Your task to perform on an android device: Show the shopping cart on newegg.com. Add "razer huntsman" to the cart on newegg.com, then select checkout. Image 0: 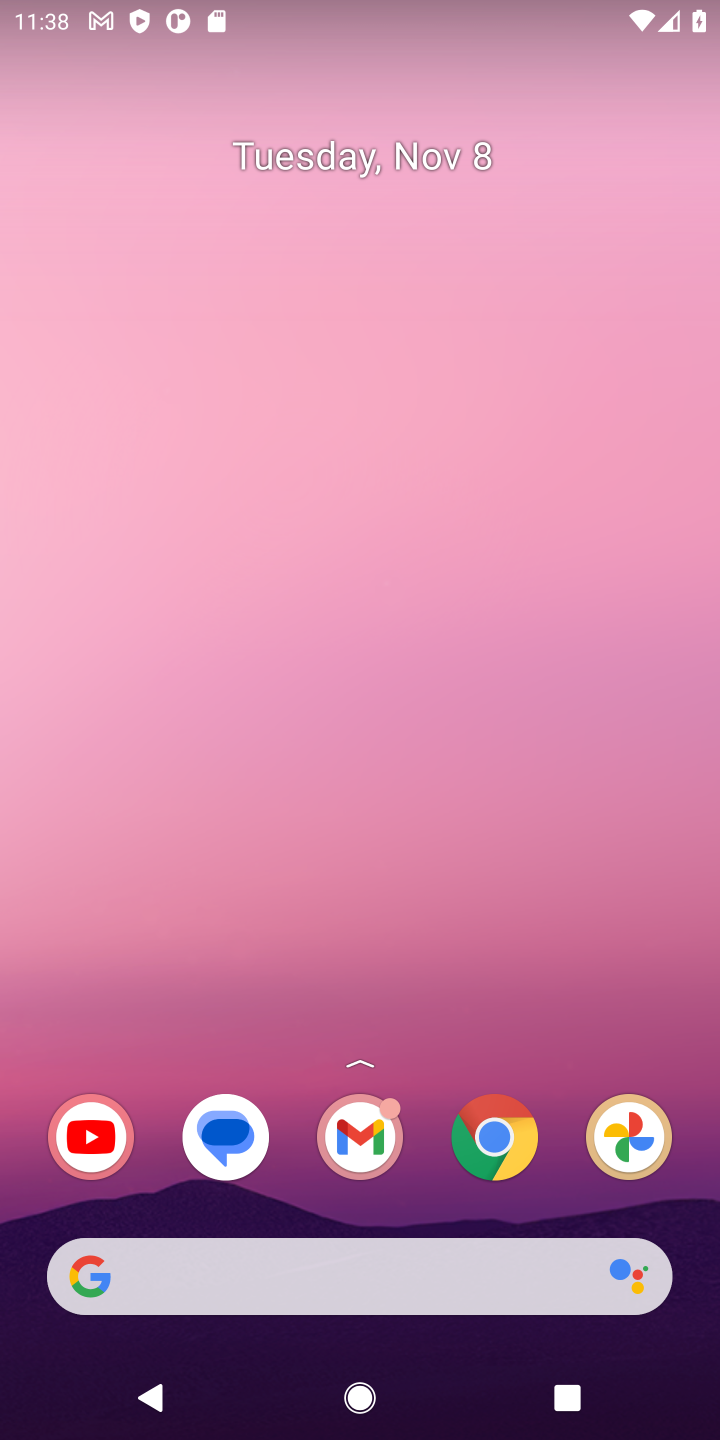
Step 0: click (494, 1135)
Your task to perform on an android device: Show the shopping cart on newegg.com. Add "razer huntsman" to the cart on newegg.com, then select checkout. Image 1: 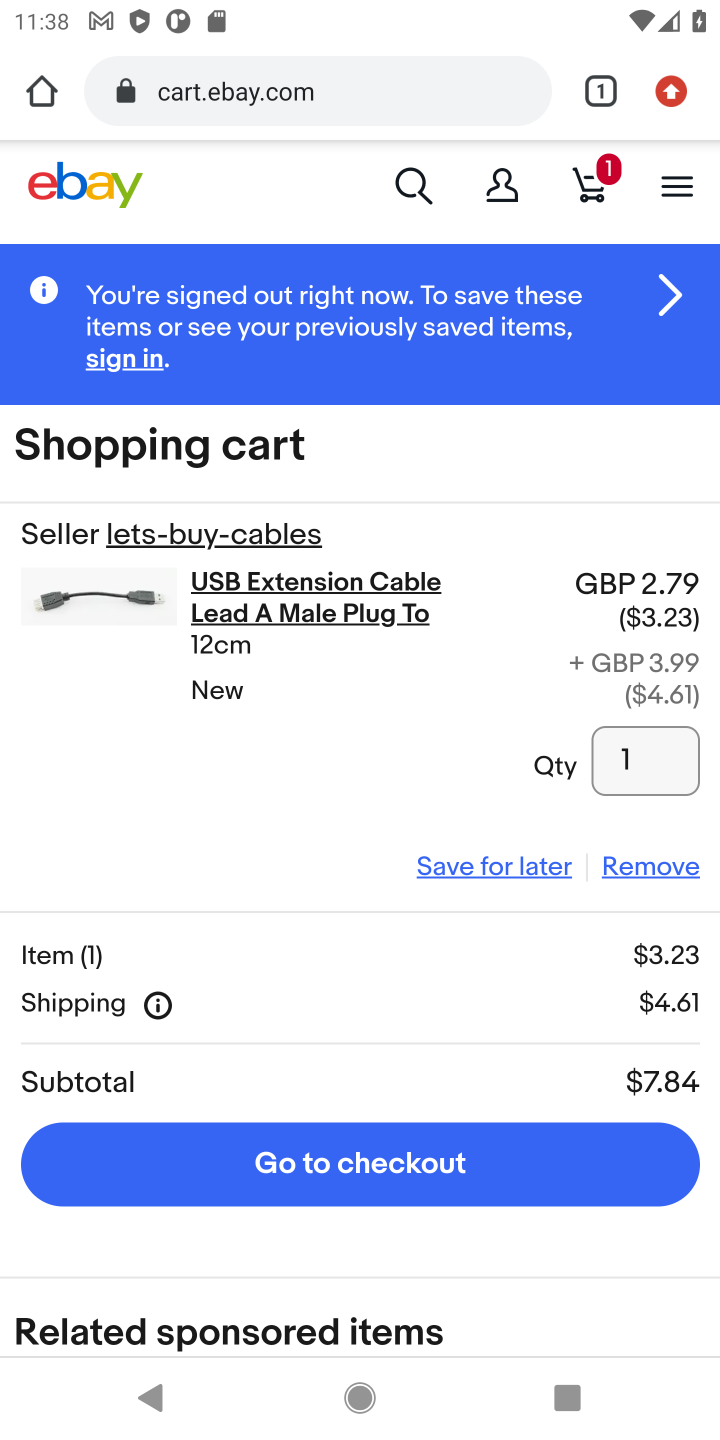
Step 1: click (308, 101)
Your task to perform on an android device: Show the shopping cart on newegg.com. Add "razer huntsman" to the cart on newegg.com, then select checkout. Image 2: 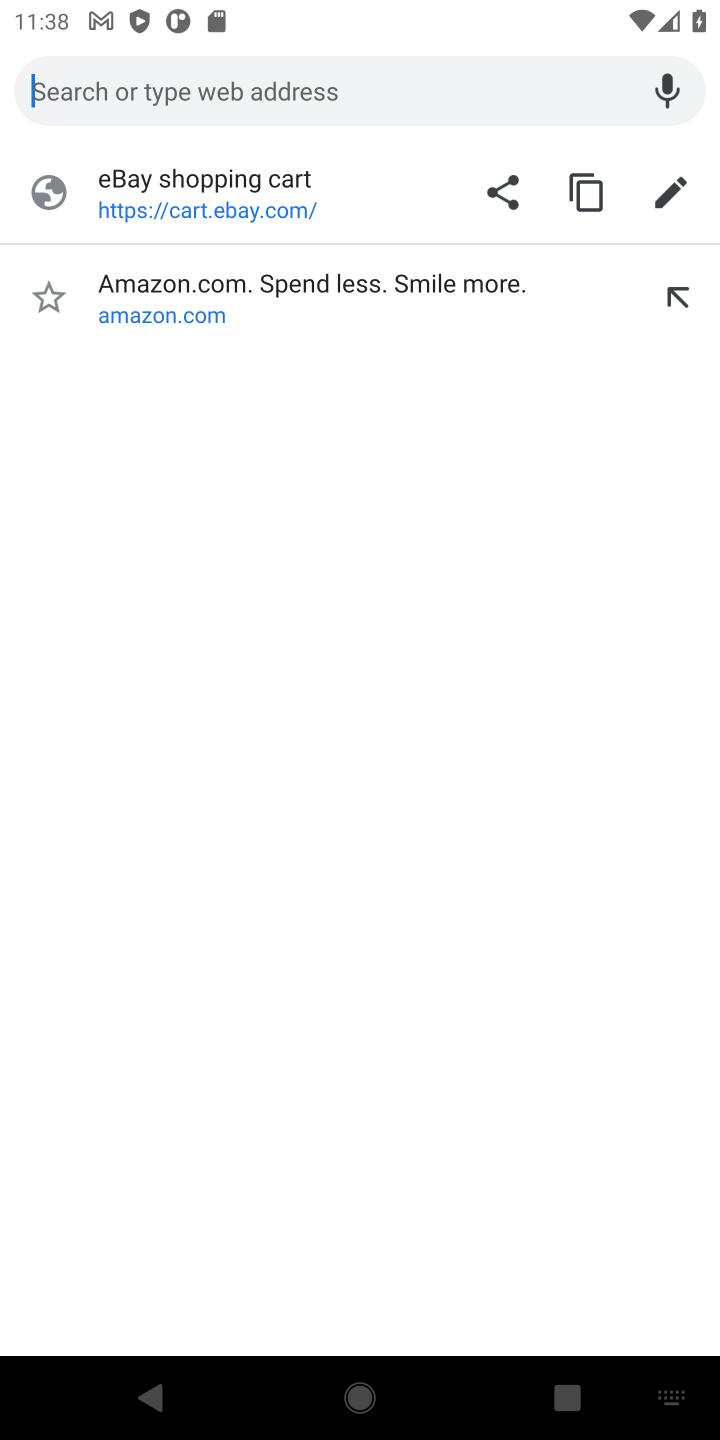
Step 2: type "newegg.com"
Your task to perform on an android device: Show the shopping cart on newegg.com. Add "razer huntsman" to the cart on newegg.com, then select checkout. Image 3: 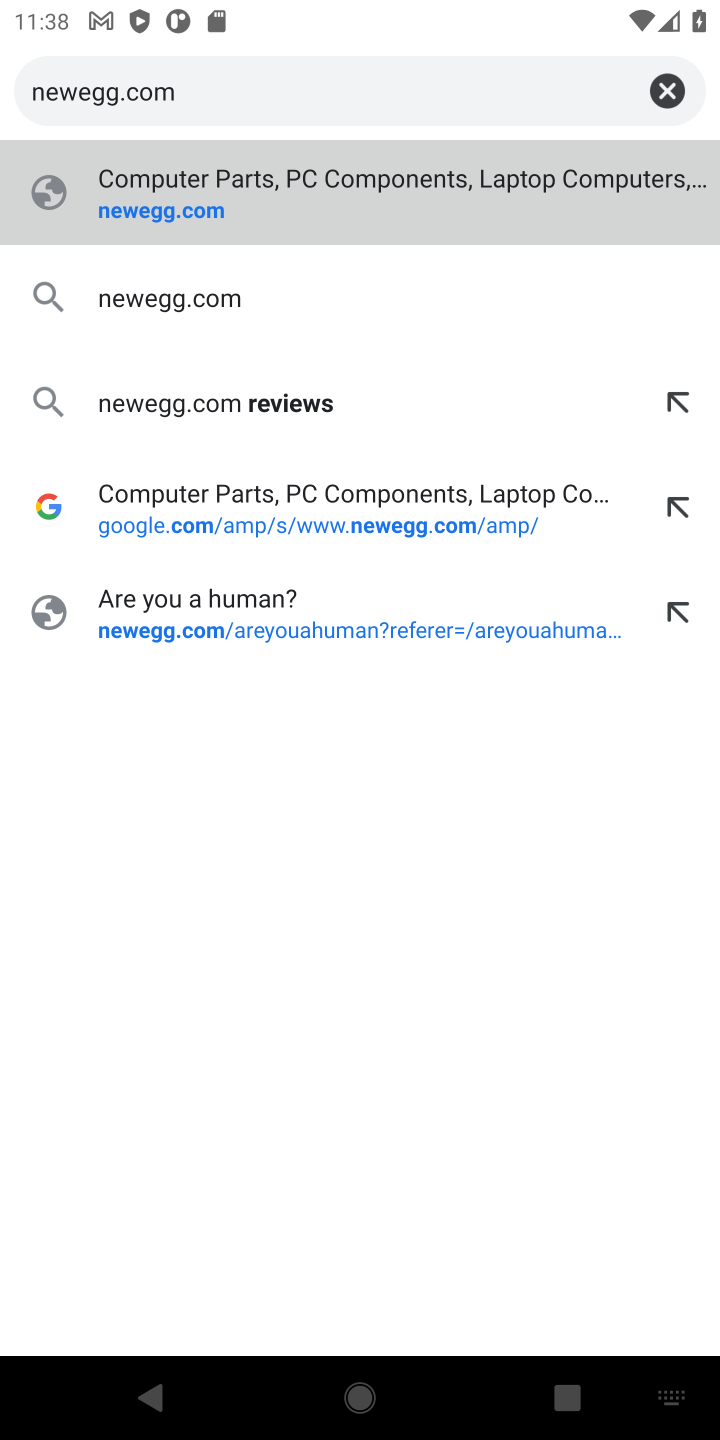
Step 3: click (205, 299)
Your task to perform on an android device: Show the shopping cart on newegg.com. Add "razer huntsman" to the cart on newegg.com, then select checkout. Image 4: 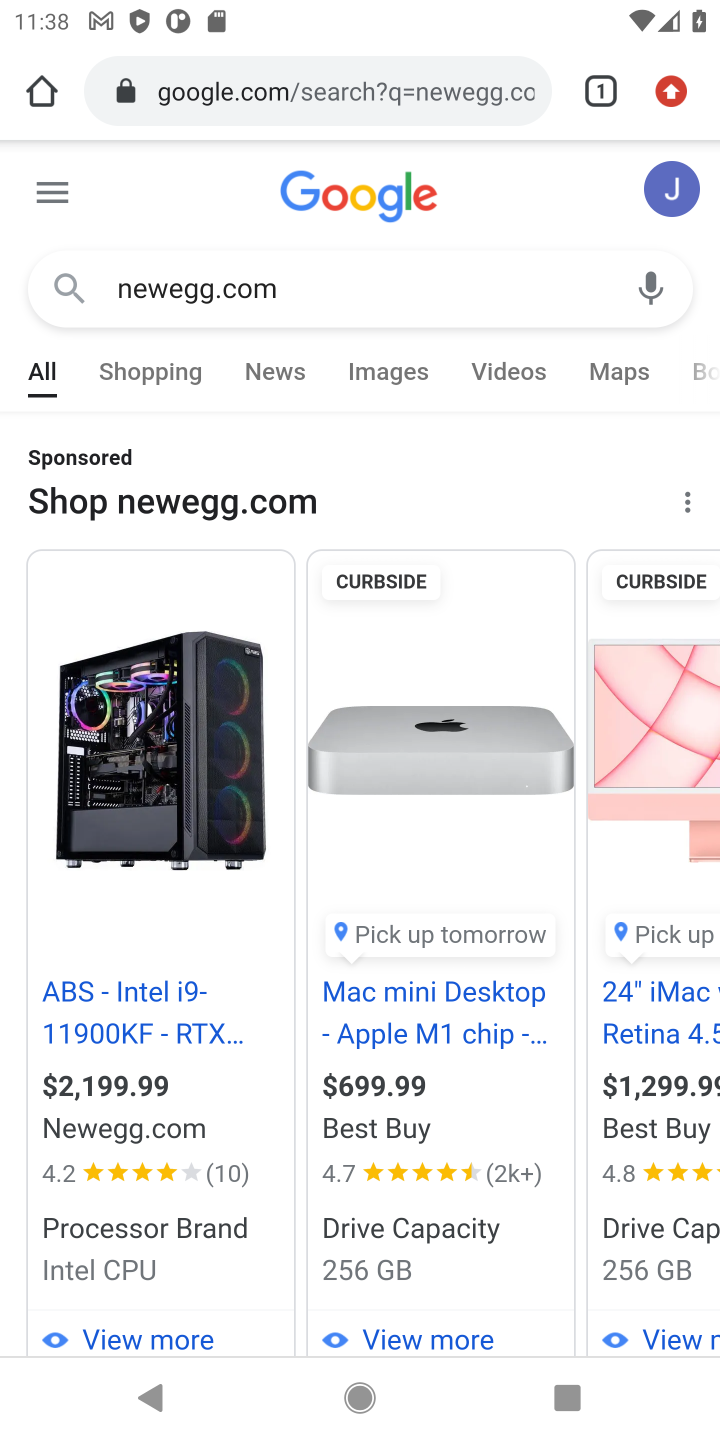
Step 4: drag from (487, 1025) to (505, 569)
Your task to perform on an android device: Show the shopping cart on newegg.com. Add "razer huntsman" to the cart on newegg.com, then select checkout. Image 5: 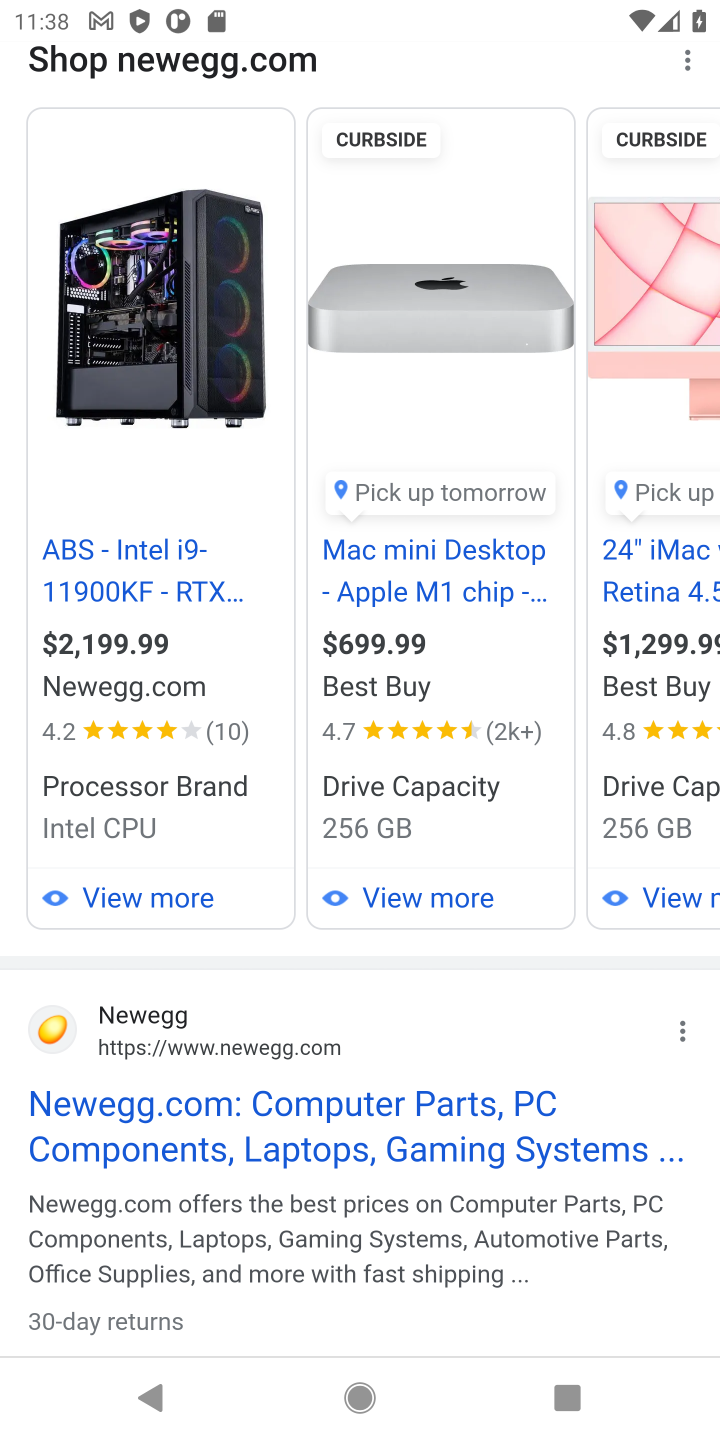
Step 5: click (386, 1166)
Your task to perform on an android device: Show the shopping cart on newegg.com. Add "razer huntsman" to the cart on newegg.com, then select checkout. Image 6: 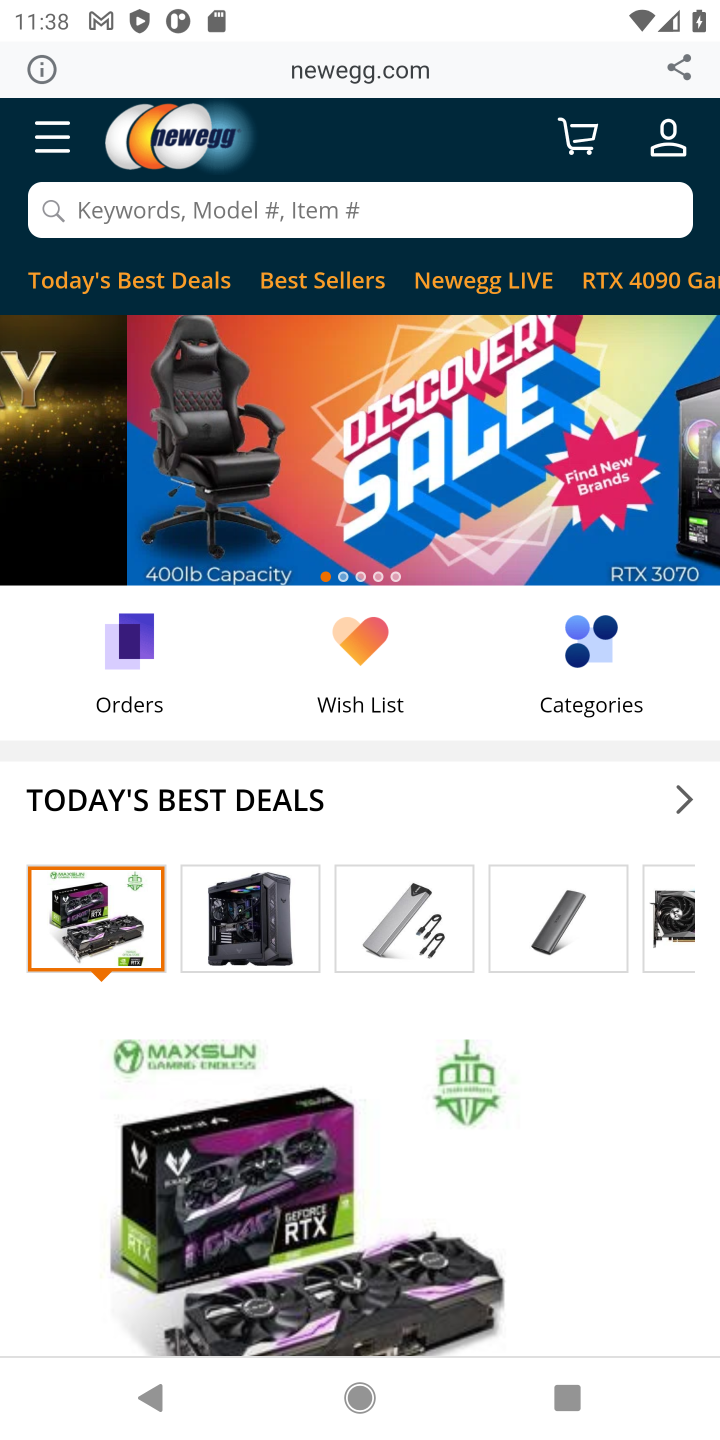
Step 6: click (587, 149)
Your task to perform on an android device: Show the shopping cart on newegg.com. Add "razer huntsman" to the cart on newegg.com, then select checkout. Image 7: 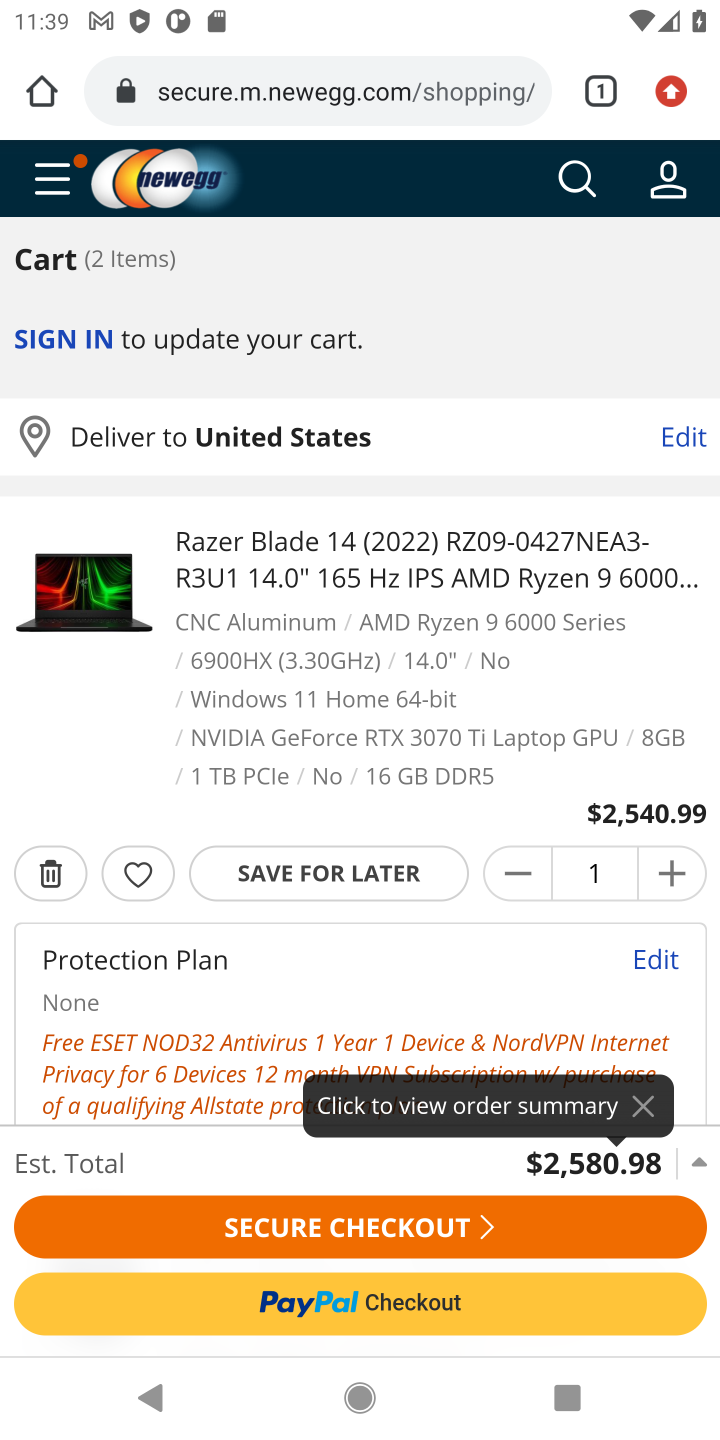
Step 7: click (590, 185)
Your task to perform on an android device: Show the shopping cart on newegg.com. Add "razer huntsman" to the cart on newegg.com, then select checkout. Image 8: 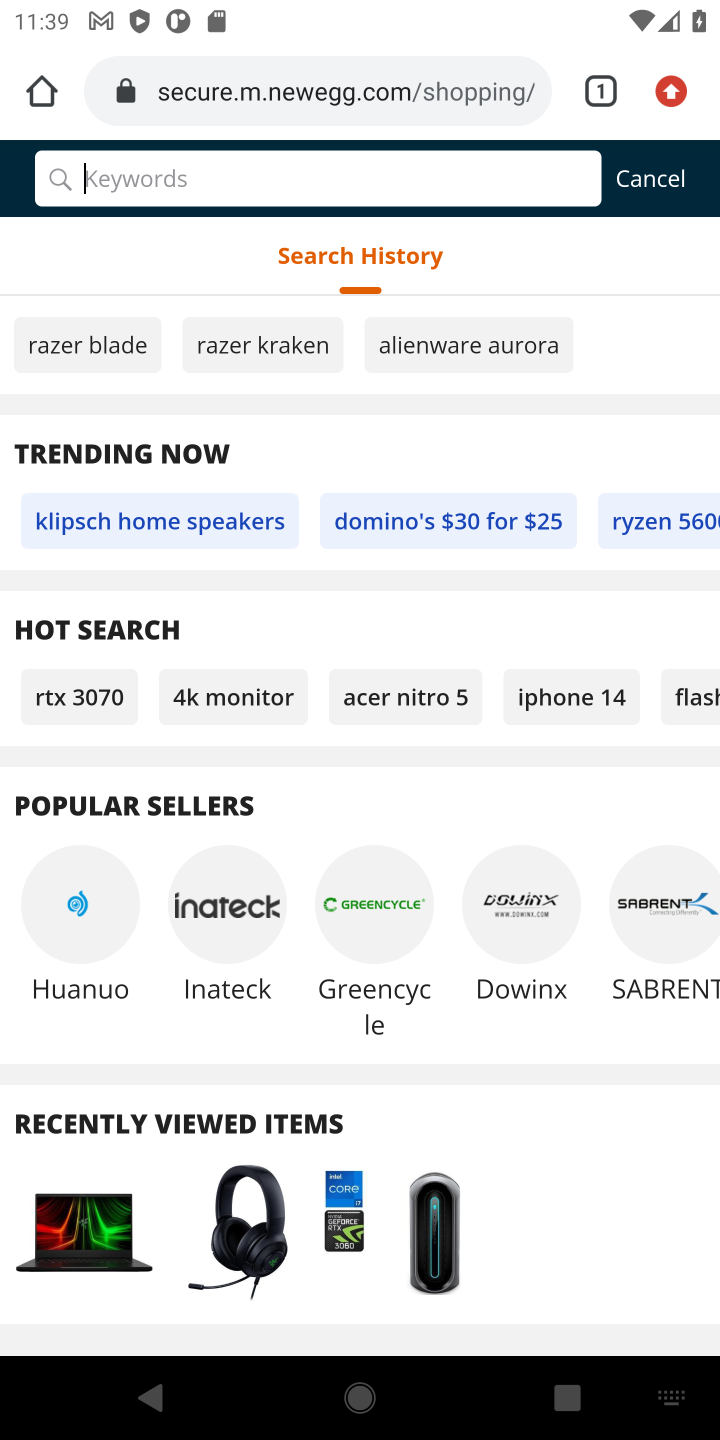
Step 8: click (364, 177)
Your task to perform on an android device: Show the shopping cart on newegg.com. Add "razer huntsman" to the cart on newegg.com, then select checkout. Image 9: 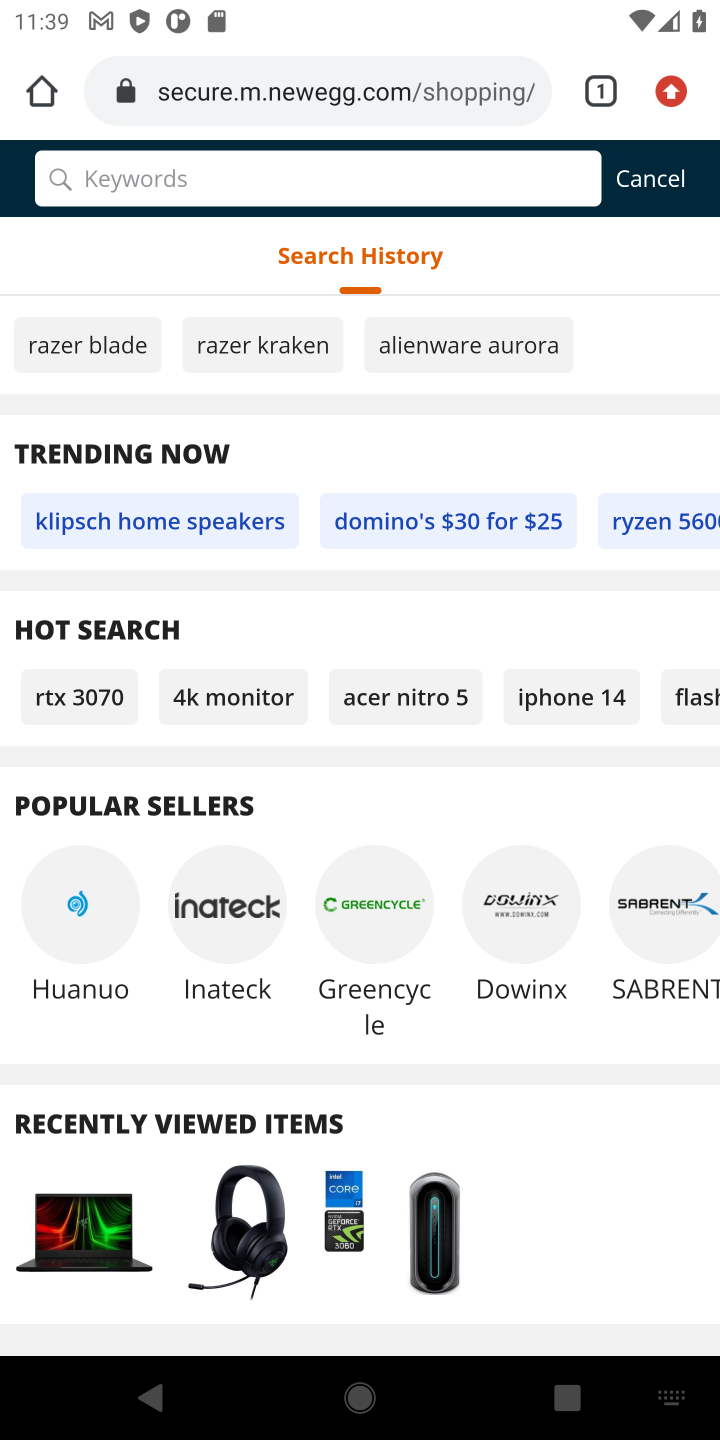
Step 9: type "razer huntsman"
Your task to perform on an android device: Show the shopping cart on newegg.com. Add "razer huntsman" to the cart on newegg.com, then select checkout. Image 10: 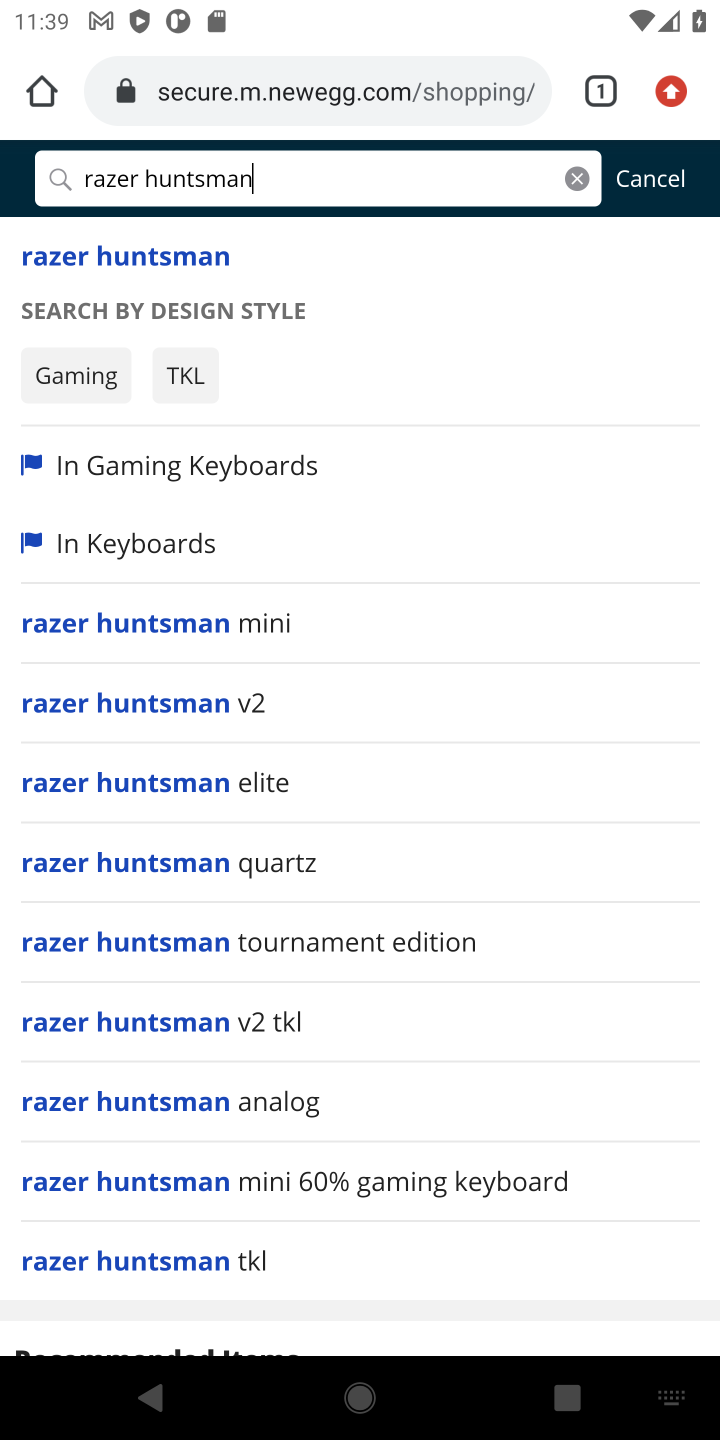
Step 10: click (164, 259)
Your task to perform on an android device: Show the shopping cart on newegg.com. Add "razer huntsman" to the cart on newegg.com, then select checkout. Image 11: 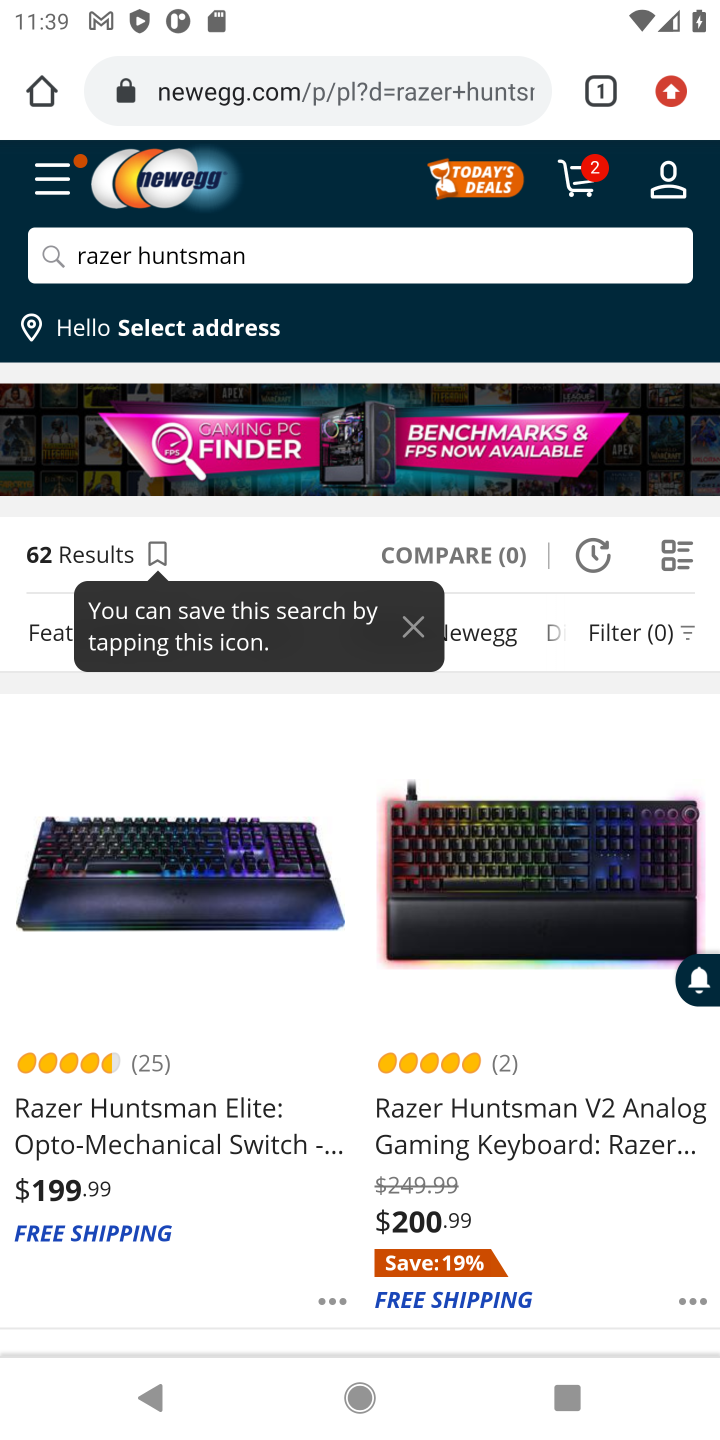
Step 11: click (162, 1137)
Your task to perform on an android device: Show the shopping cart on newegg.com. Add "razer huntsman" to the cart on newegg.com, then select checkout. Image 12: 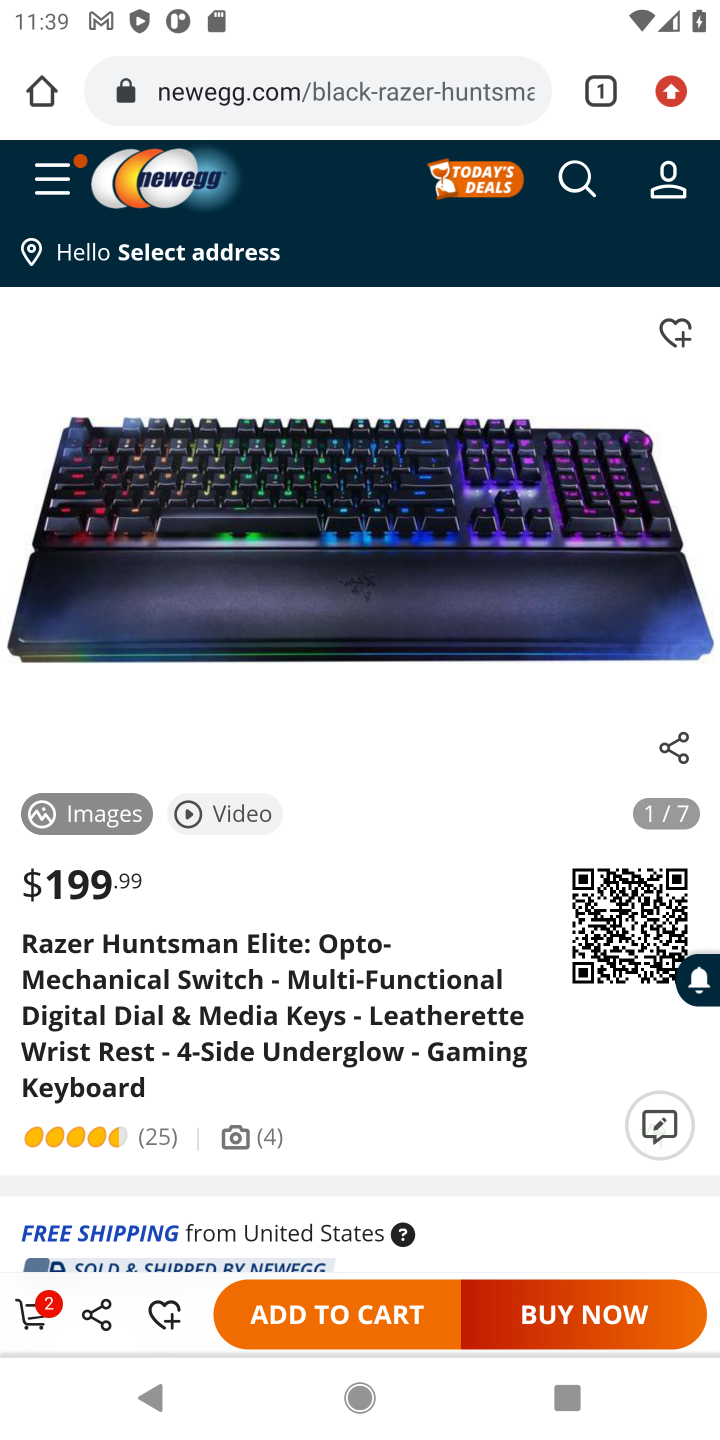
Step 12: click (321, 1323)
Your task to perform on an android device: Show the shopping cart on newegg.com. Add "razer huntsman" to the cart on newegg.com, then select checkout. Image 13: 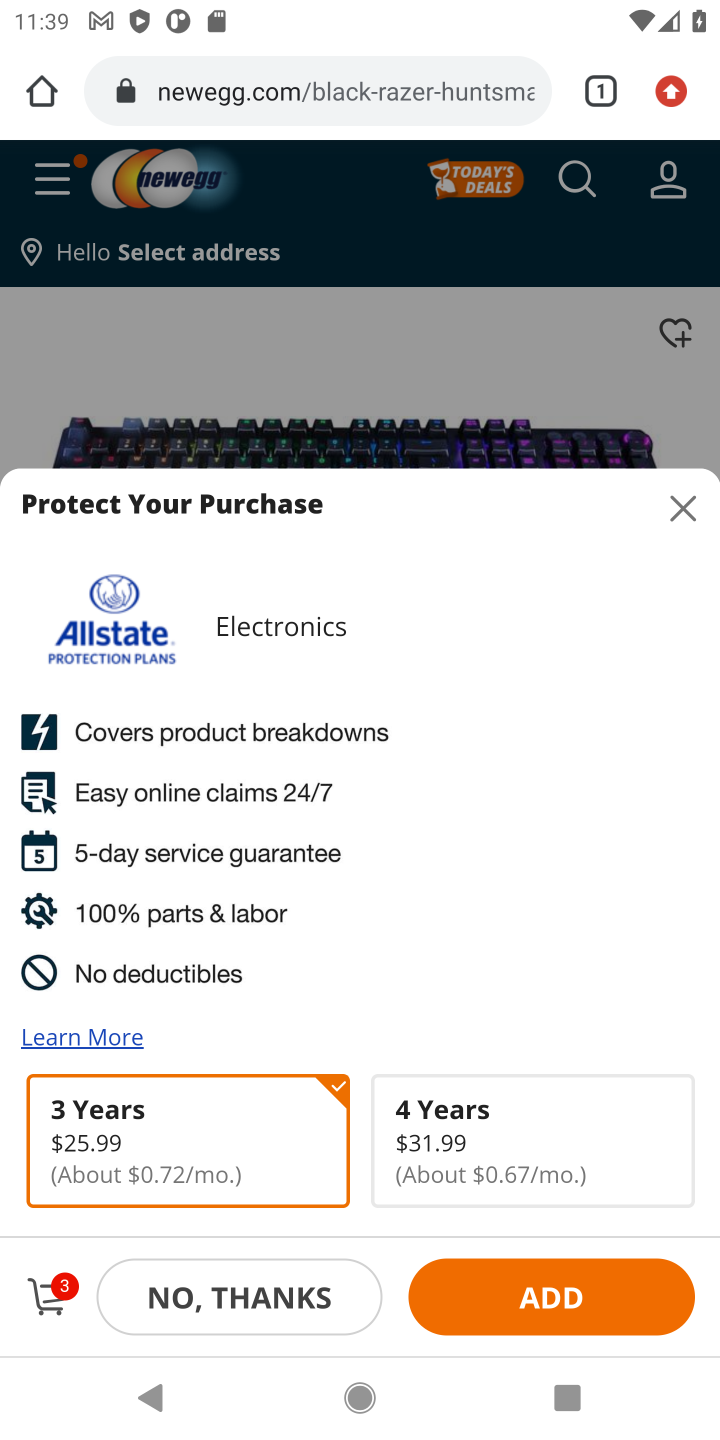
Step 13: click (264, 1292)
Your task to perform on an android device: Show the shopping cart on newegg.com. Add "razer huntsman" to the cart on newegg.com, then select checkout. Image 14: 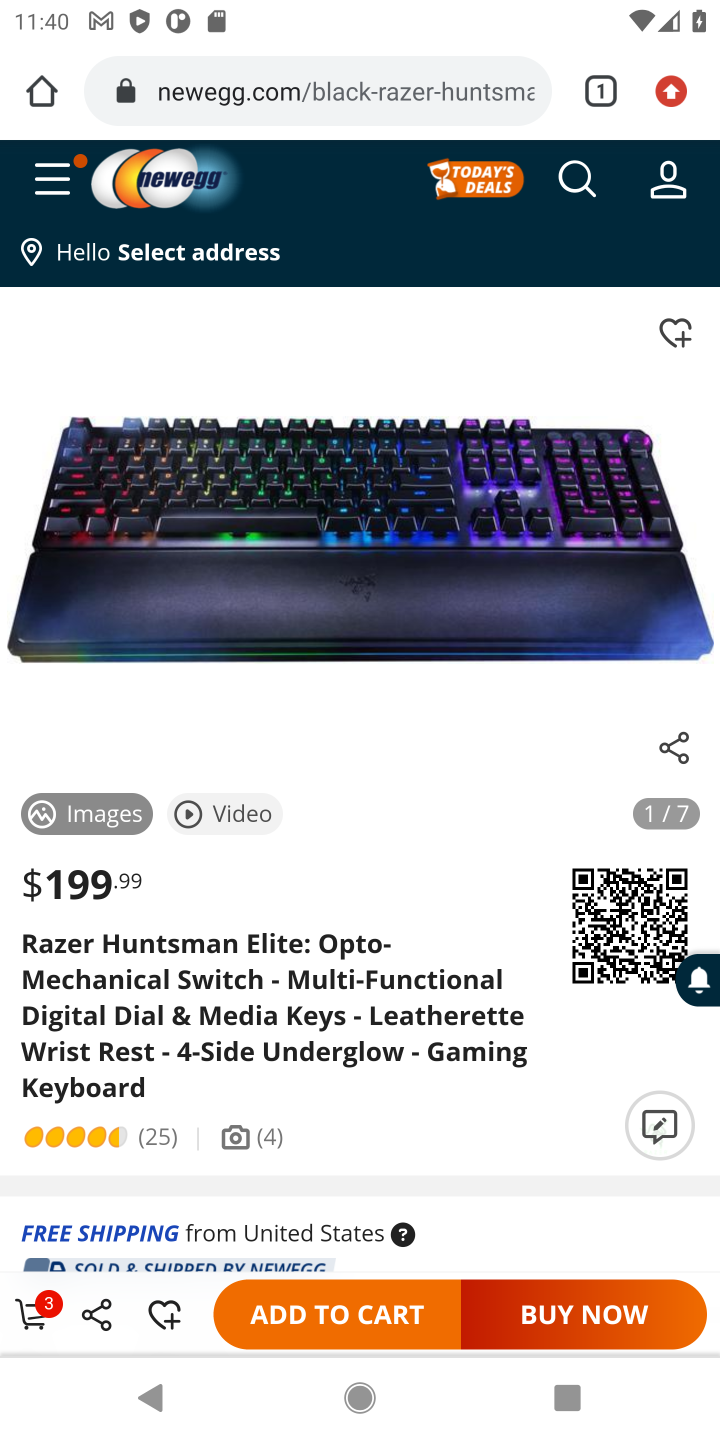
Step 14: click (31, 1319)
Your task to perform on an android device: Show the shopping cart on newegg.com. Add "razer huntsman" to the cart on newegg.com, then select checkout. Image 15: 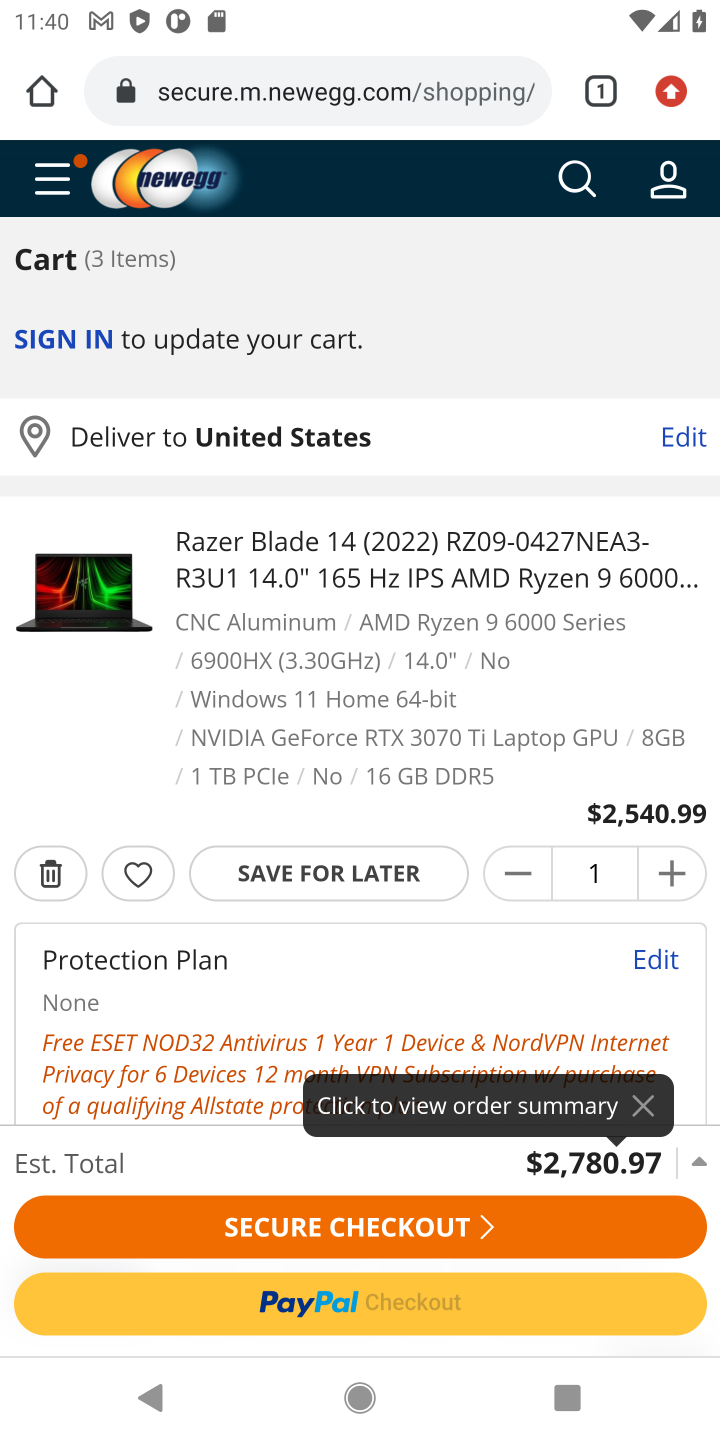
Step 15: click (388, 1238)
Your task to perform on an android device: Show the shopping cart on newegg.com. Add "razer huntsman" to the cart on newegg.com, then select checkout. Image 16: 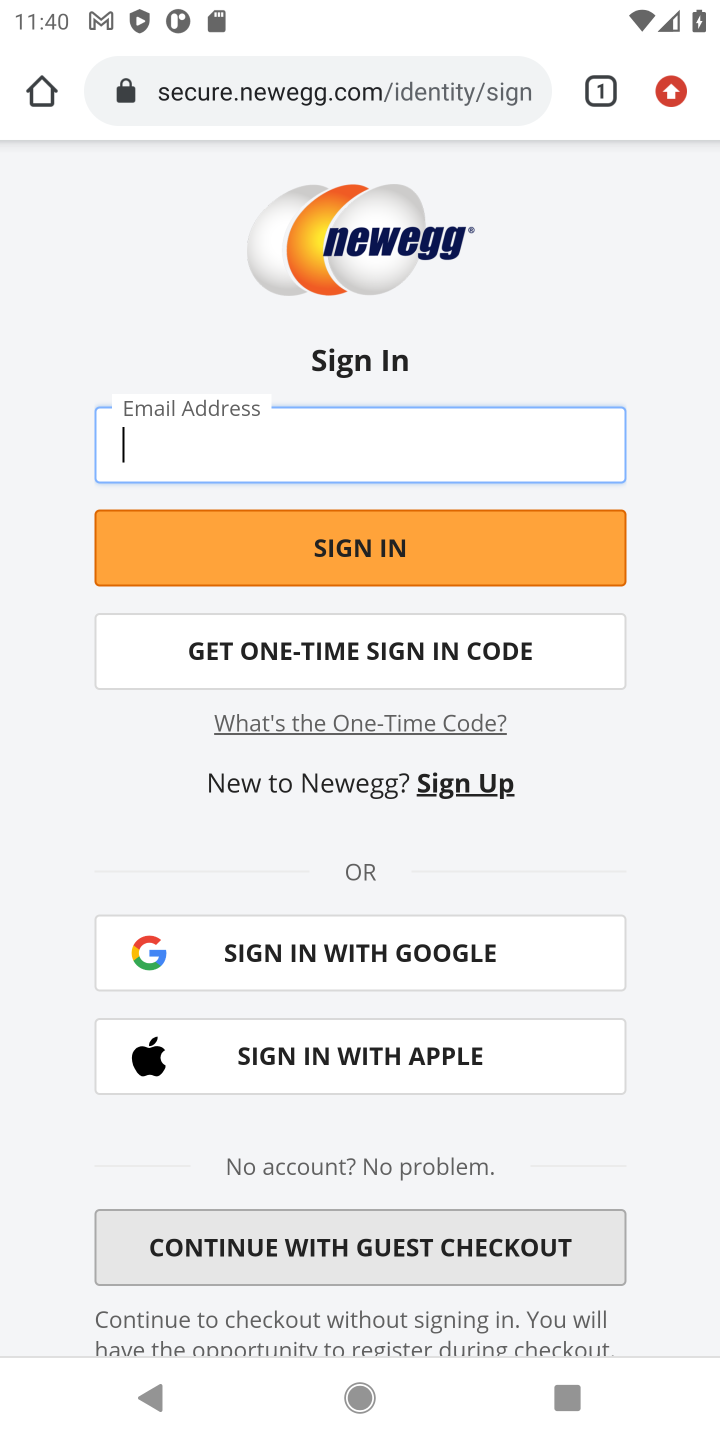
Step 16: task complete